Your task to perform on an android device: Open my contact list Image 0: 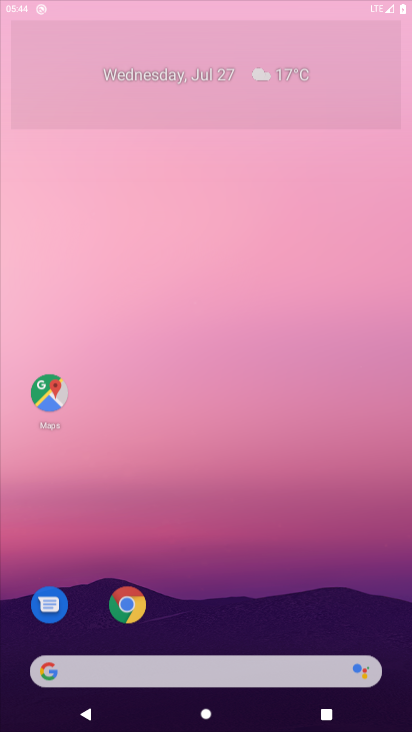
Step 0: press home button
Your task to perform on an android device: Open my contact list Image 1: 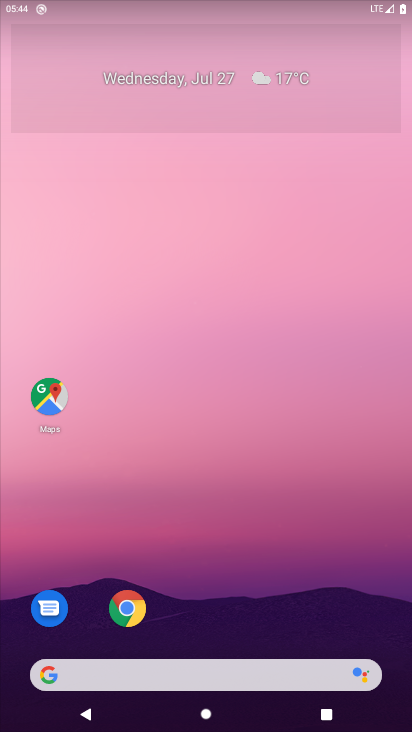
Step 1: click (214, 637)
Your task to perform on an android device: Open my contact list Image 2: 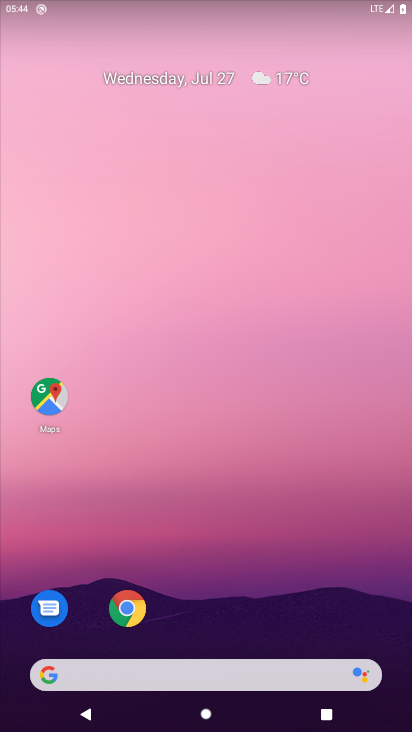
Step 2: drag from (219, 634) to (259, 102)
Your task to perform on an android device: Open my contact list Image 3: 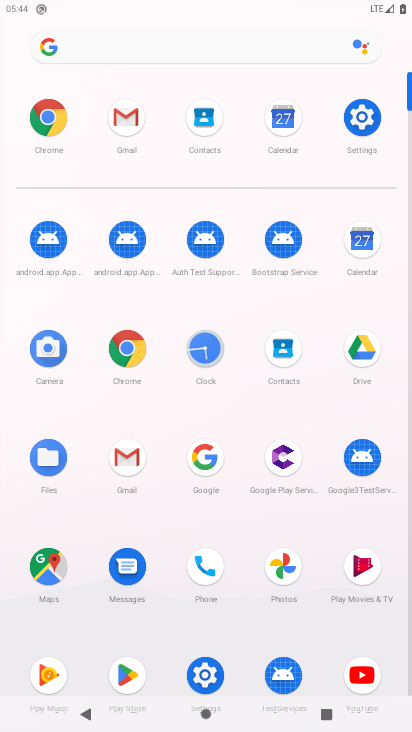
Step 3: click (283, 353)
Your task to perform on an android device: Open my contact list Image 4: 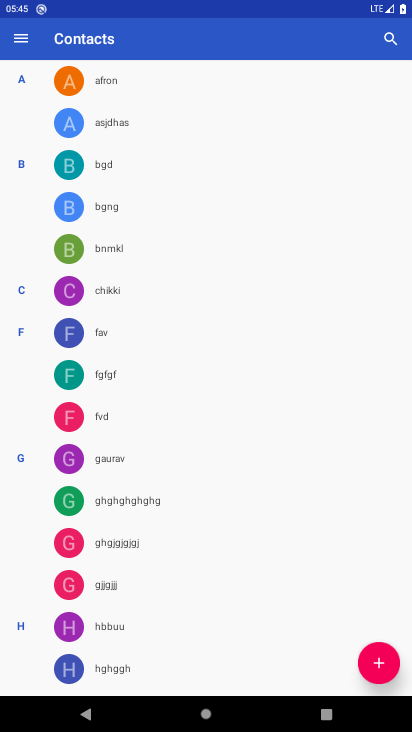
Step 4: task complete